Your task to perform on an android device: Do I have any events tomorrow? Image 0: 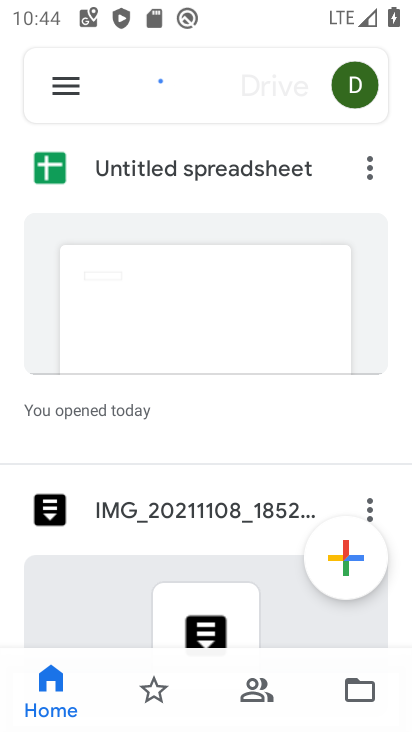
Step 0: press home button
Your task to perform on an android device: Do I have any events tomorrow? Image 1: 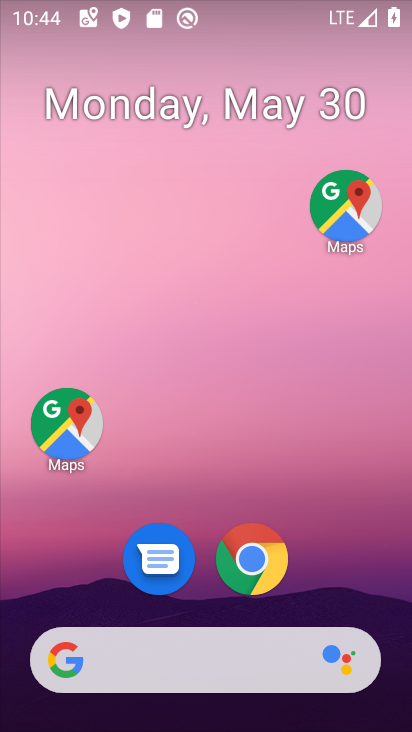
Step 1: drag from (306, 579) to (281, 169)
Your task to perform on an android device: Do I have any events tomorrow? Image 2: 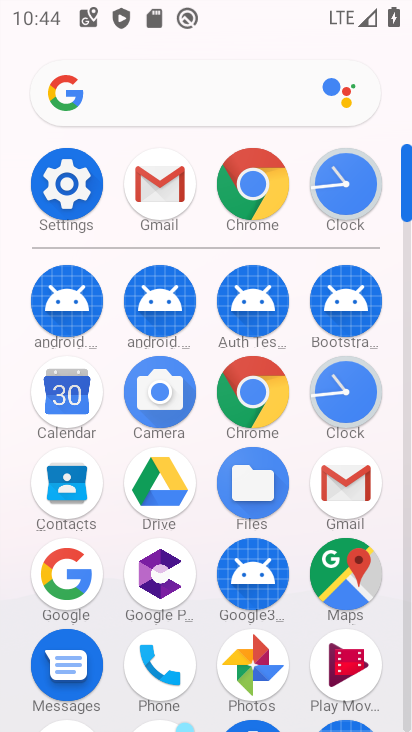
Step 2: click (55, 401)
Your task to perform on an android device: Do I have any events tomorrow? Image 3: 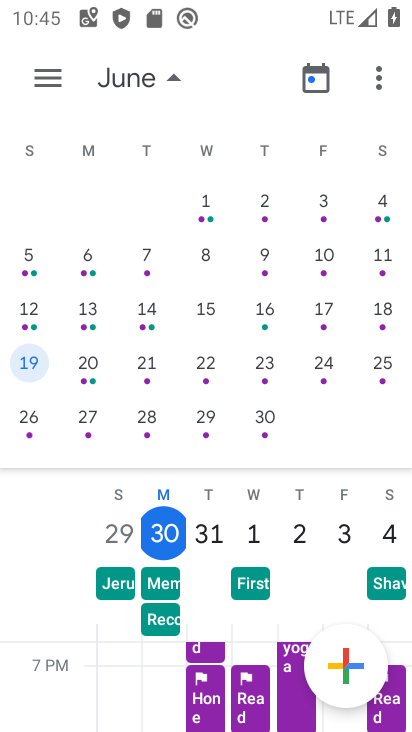
Step 3: drag from (248, 501) to (277, 25)
Your task to perform on an android device: Do I have any events tomorrow? Image 4: 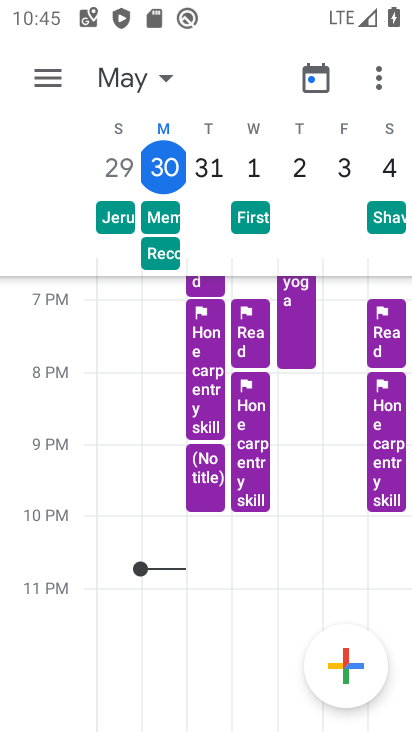
Step 4: click (203, 167)
Your task to perform on an android device: Do I have any events tomorrow? Image 5: 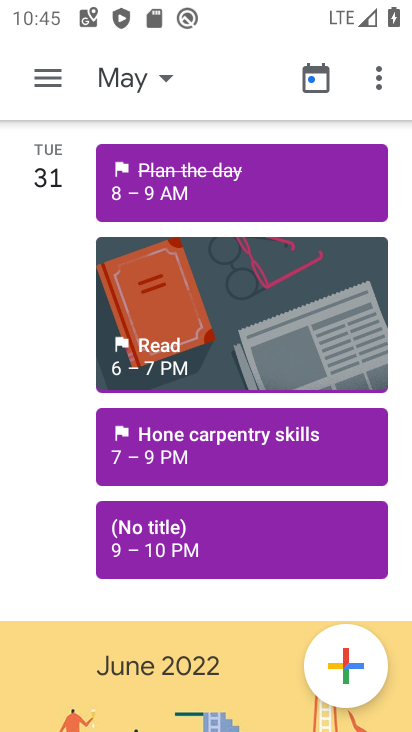
Step 5: task complete